Your task to perform on an android device: change alarm snooze length Image 0: 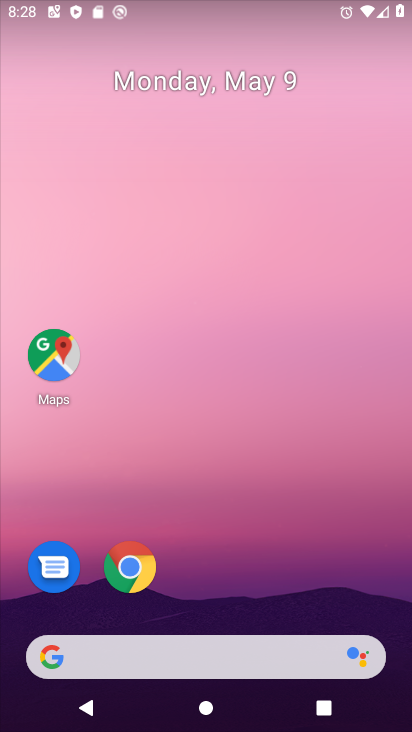
Step 0: drag from (326, 599) to (327, 252)
Your task to perform on an android device: change alarm snooze length Image 1: 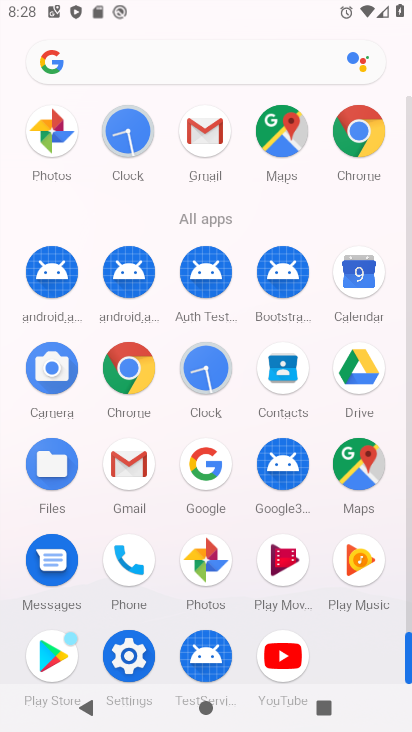
Step 1: click (125, 148)
Your task to perform on an android device: change alarm snooze length Image 2: 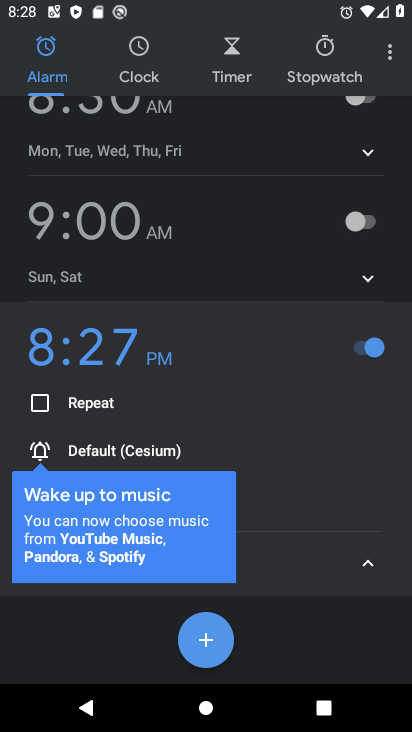
Step 2: click (391, 57)
Your task to perform on an android device: change alarm snooze length Image 3: 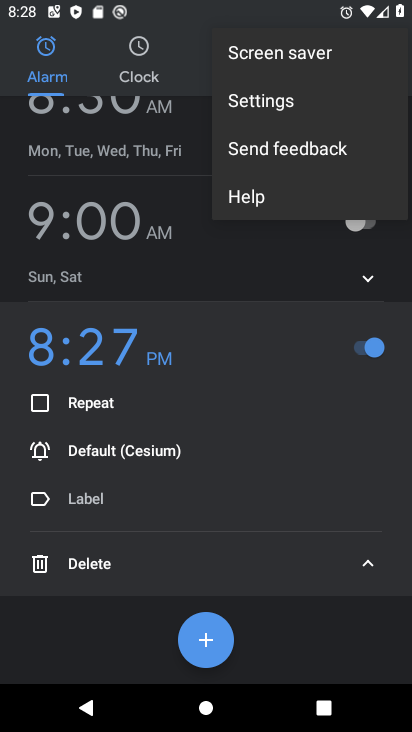
Step 3: click (251, 103)
Your task to perform on an android device: change alarm snooze length Image 4: 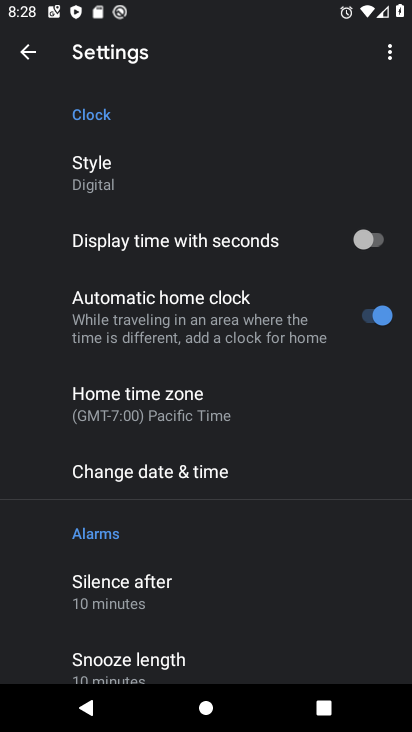
Step 4: drag from (172, 625) to (158, 371)
Your task to perform on an android device: change alarm snooze length Image 5: 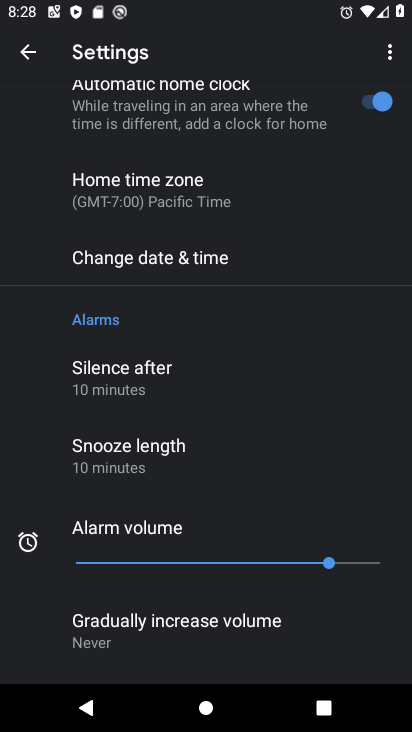
Step 5: click (147, 463)
Your task to perform on an android device: change alarm snooze length Image 6: 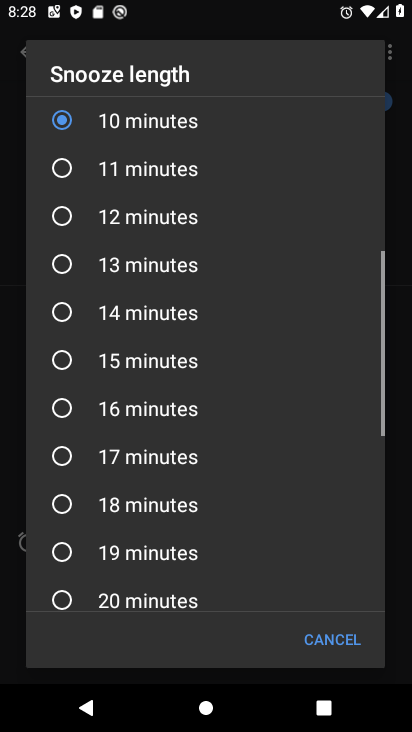
Step 6: click (148, 412)
Your task to perform on an android device: change alarm snooze length Image 7: 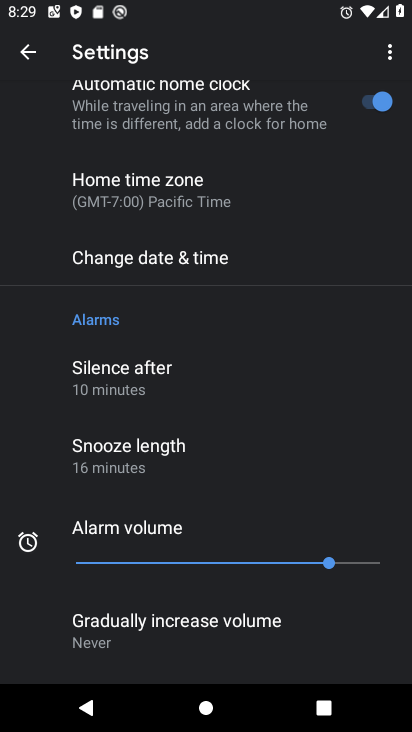
Step 7: task complete